Your task to perform on an android device: check google app version Image 0: 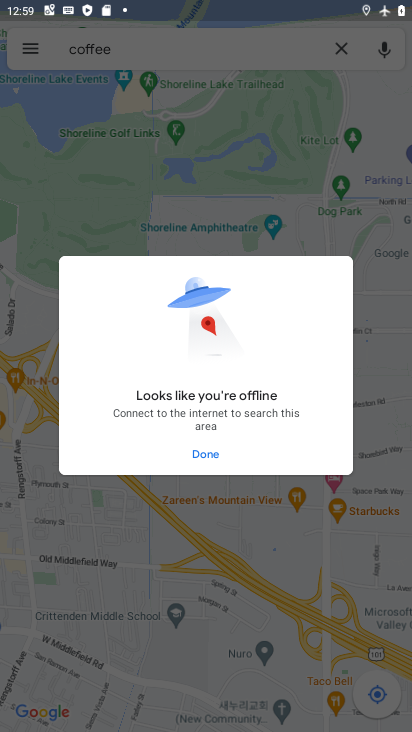
Step 0: press home button
Your task to perform on an android device: check google app version Image 1: 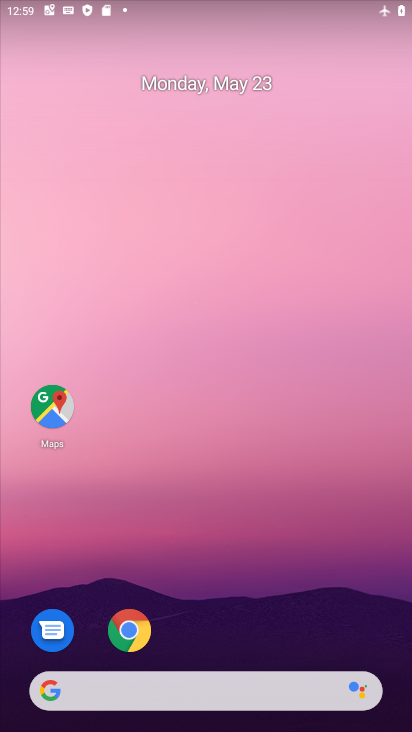
Step 1: drag from (332, 449) to (334, 127)
Your task to perform on an android device: check google app version Image 2: 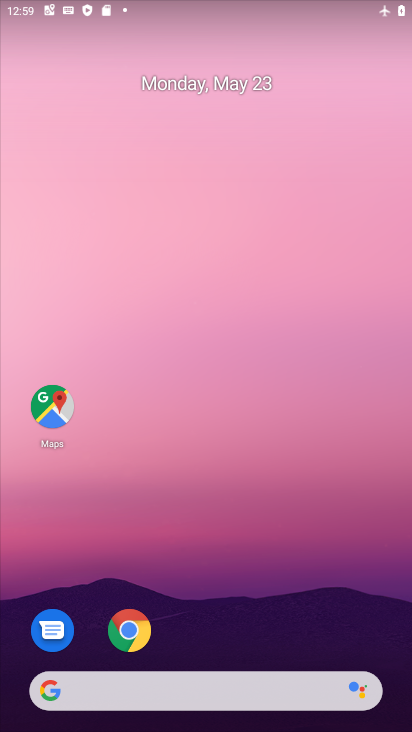
Step 2: drag from (304, 601) to (354, 116)
Your task to perform on an android device: check google app version Image 3: 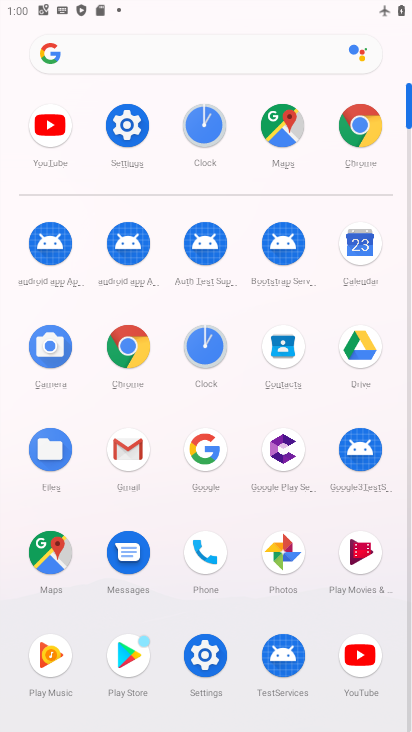
Step 3: click (204, 447)
Your task to perform on an android device: check google app version Image 4: 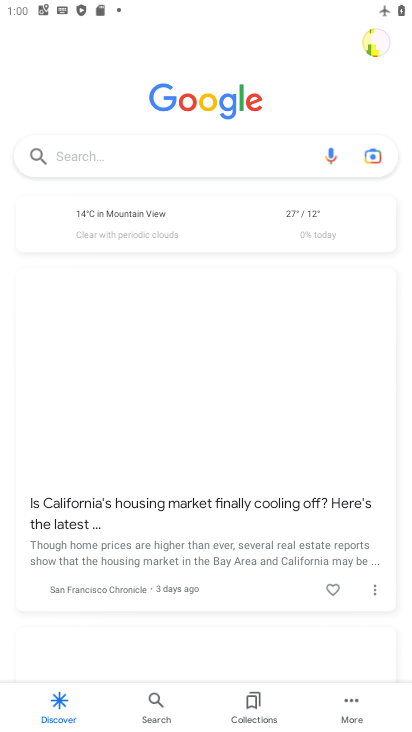
Step 4: click (353, 695)
Your task to perform on an android device: check google app version Image 5: 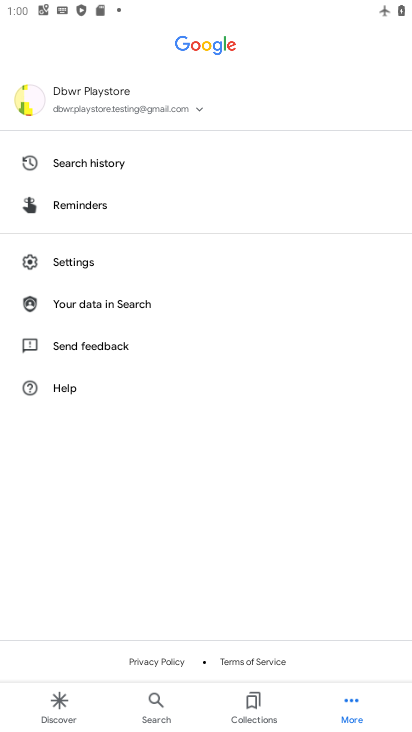
Step 5: click (90, 260)
Your task to perform on an android device: check google app version Image 6: 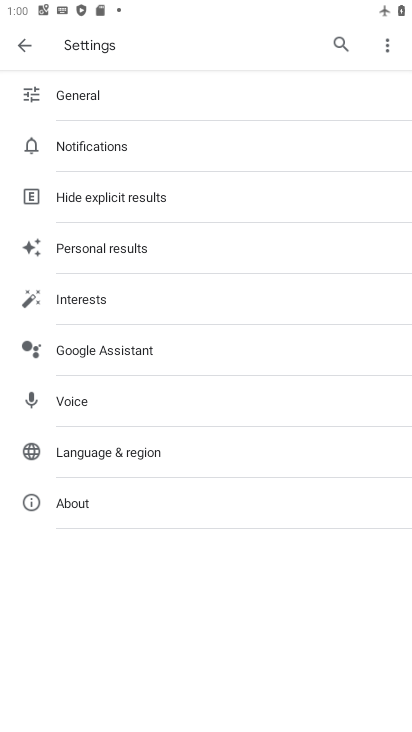
Step 6: click (90, 503)
Your task to perform on an android device: check google app version Image 7: 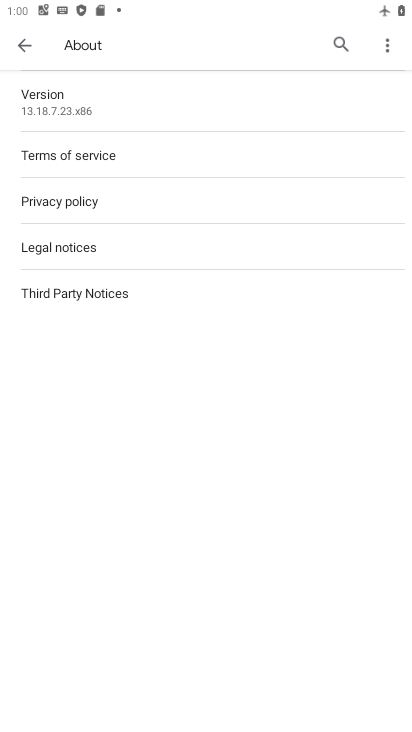
Step 7: task complete